Your task to perform on an android device: find photos in the google photos app Image 0: 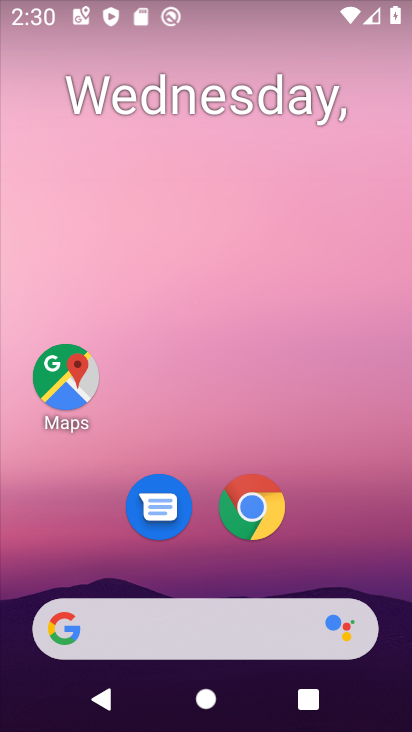
Step 0: drag from (341, 528) to (400, 117)
Your task to perform on an android device: find photos in the google photos app Image 1: 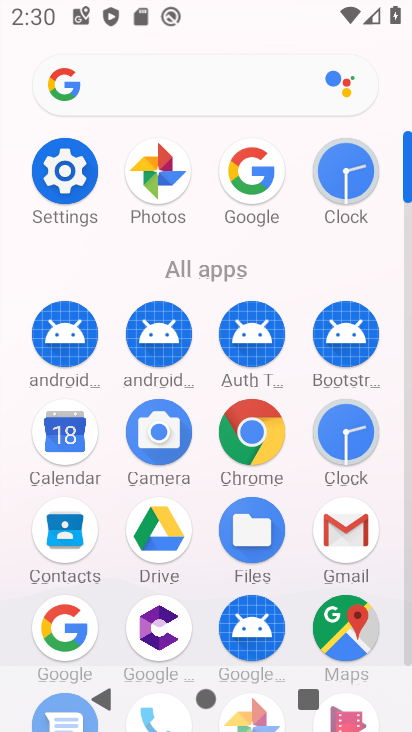
Step 1: click (162, 183)
Your task to perform on an android device: find photos in the google photos app Image 2: 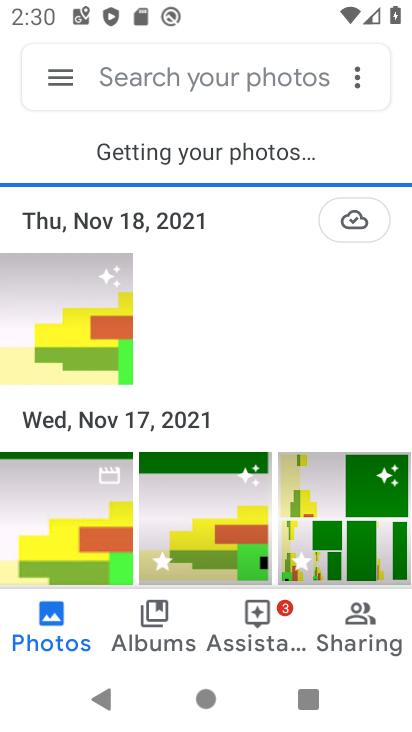
Step 2: task complete